Your task to perform on an android device: Open Android settings Image 0: 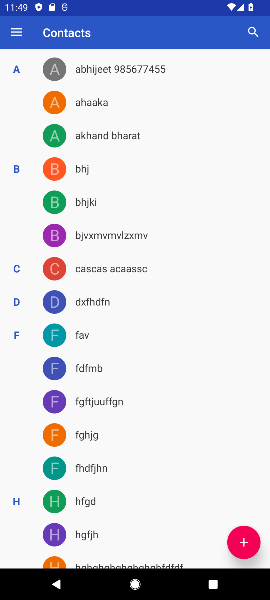
Step 0: press home button
Your task to perform on an android device: Open Android settings Image 1: 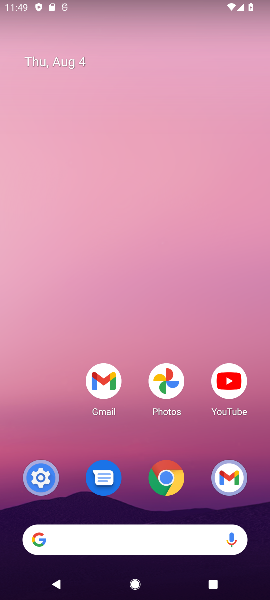
Step 1: drag from (120, 493) to (75, 176)
Your task to perform on an android device: Open Android settings Image 2: 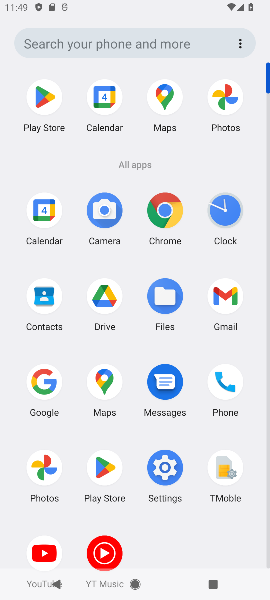
Step 2: click (168, 467)
Your task to perform on an android device: Open Android settings Image 3: 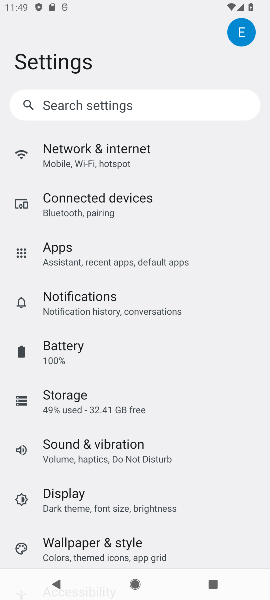
Step 3: drag from (186, 529) to (164, 107)
Your task to perform on an android device: Open Android settings Image 4: 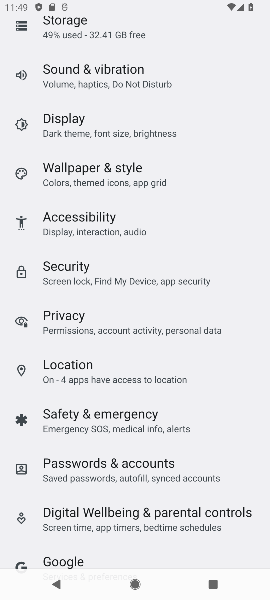
Step 4: drag from (149, 540) to (163, 236)
Your task to perform on an android device: Open Android settings Image 5: 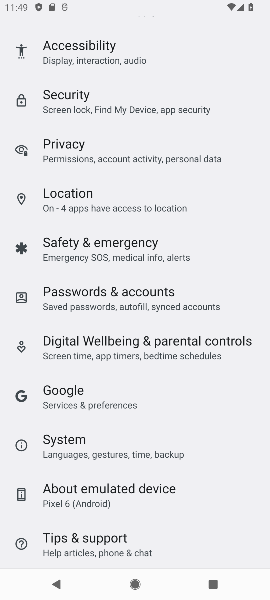
Step 5: click (115, 497)
Your task to perform on an android device: Open Android settings Image 6: 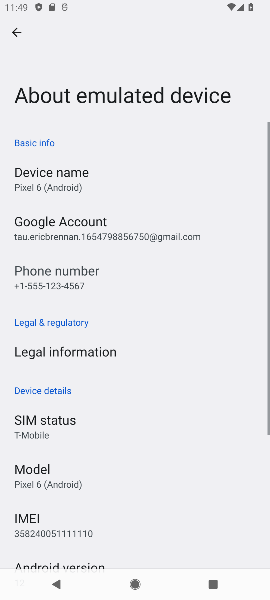
Step 6: drag from (101, 497) to (133, 152)
Your task to perform on an android device: Open Android settings Image 7: 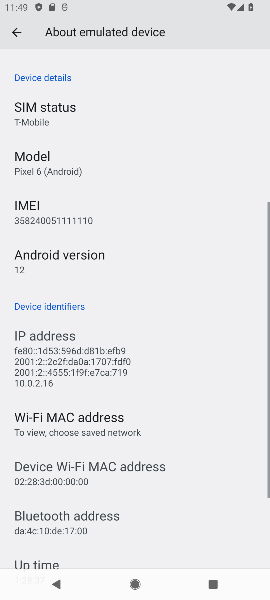
Step 7: drag from (195, 512) to (199, 206)
Your task to perform on an android device: Open Android settings Image 8: 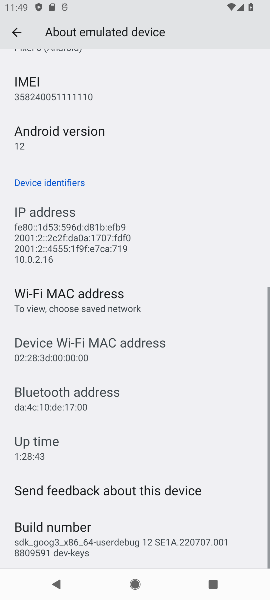
Step 8: click (52, 146)
Your task to perform on an android device: Open Android settings Image 9: 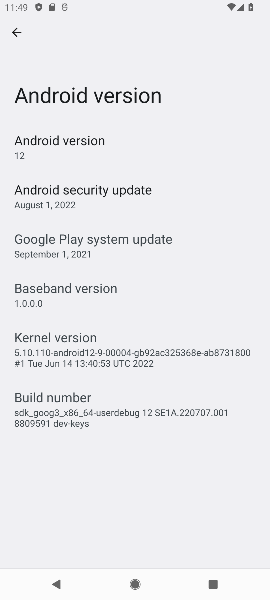
Step 9: task complete